Your task to perform on an android device: move an email to a new category in the gmail app Image 0: 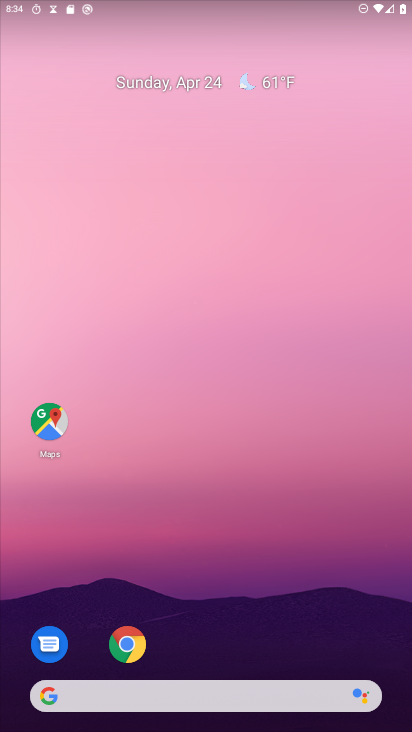
Step 0: drag from (200, 702) to (223, 69)
Your task to perform on an android device: move an email to a new category in the gmail app Image 1: 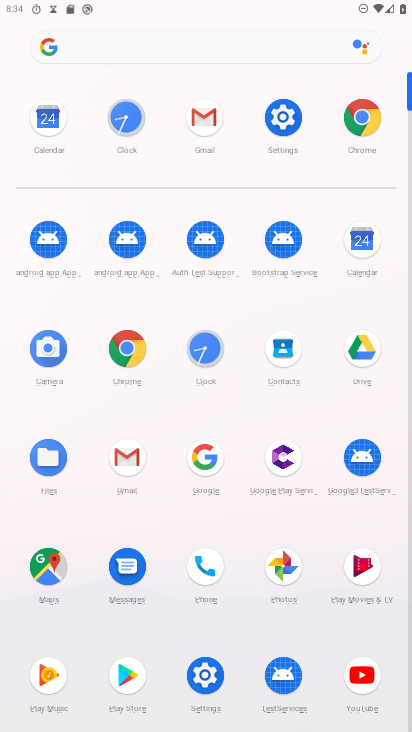
Step 1: click (118, 454)
Your task to perform on an android device: move an email to a new category in the gmail app Image 2: 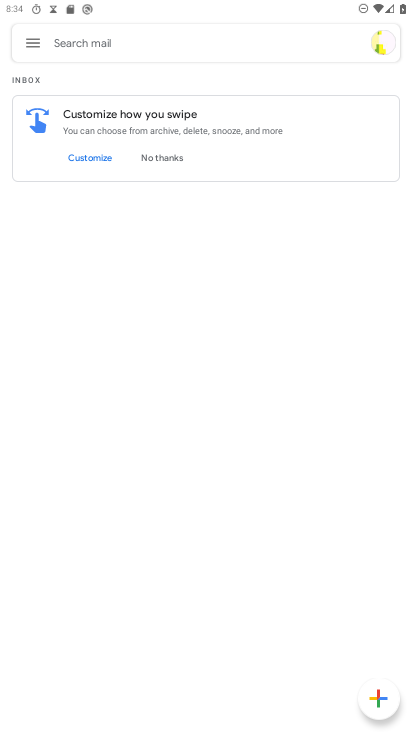
Step 2: click (29, 35)
Your task to perform on an android device: move an email to a new category in the gmail app Image 3: 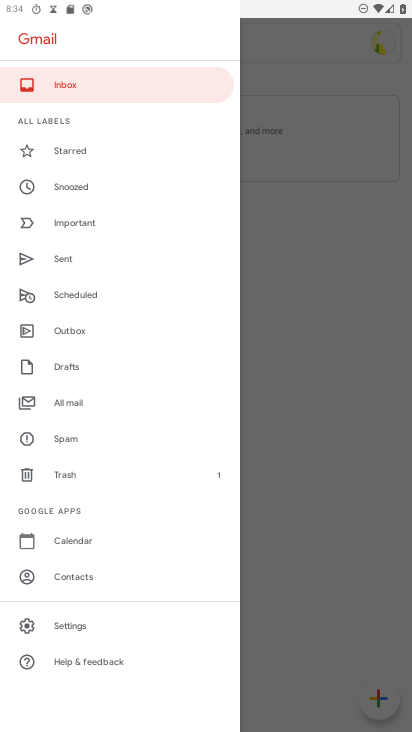
Step 3: click (81, 153)
Your task to perform on an android device: move an email to a new category in the gmail app Image 4: 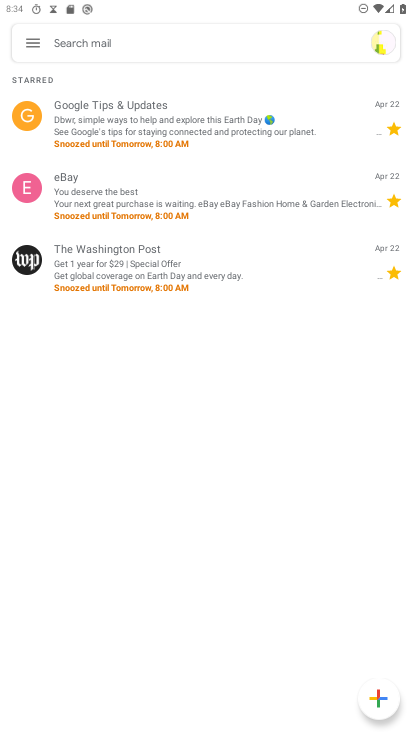
Step 4: click (26, 119)
Your task to perform on an android device: move an email to a new category in the gmail app Image 5: 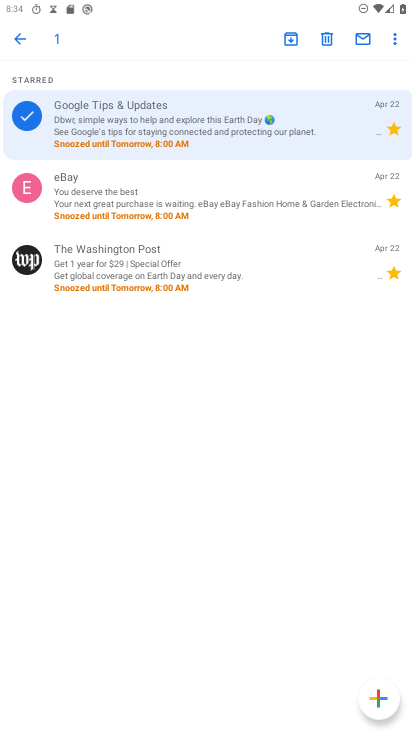
Step 5: click (389, 42)
Your task to perform on an android device: move an email to a new category in the gmail app Image 6: 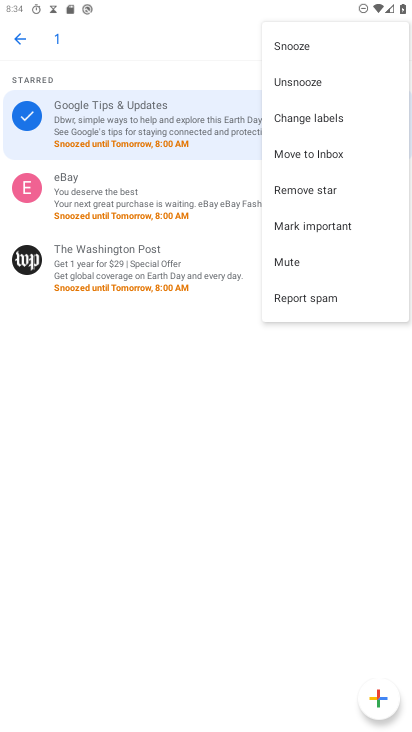
Step 6: click (335, 150)
Your task to perform on an android device: move an email to a new category in the gmail app Image 7: 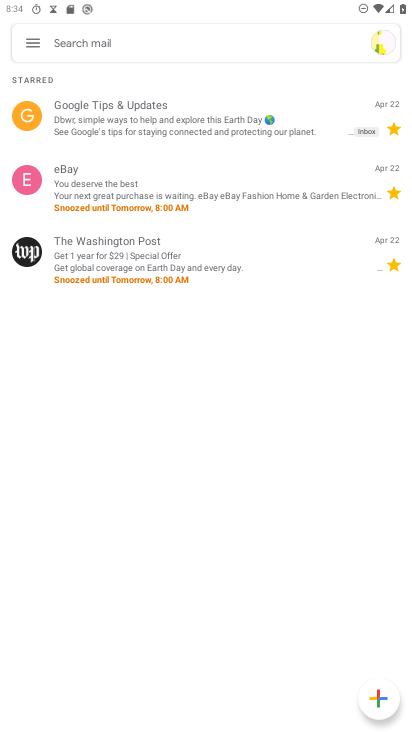
Step 7: task complete